Your task to perform on an android device: turn off airplane mode Image 0: 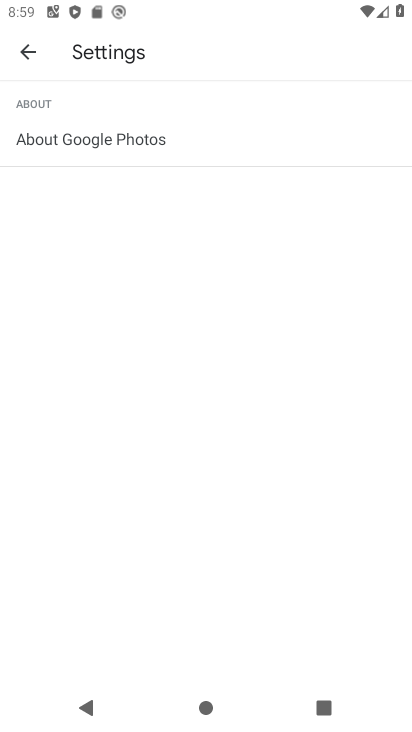
Step 0: press home button
Your task to perform on an android device: turn off airplane mode Image 1: 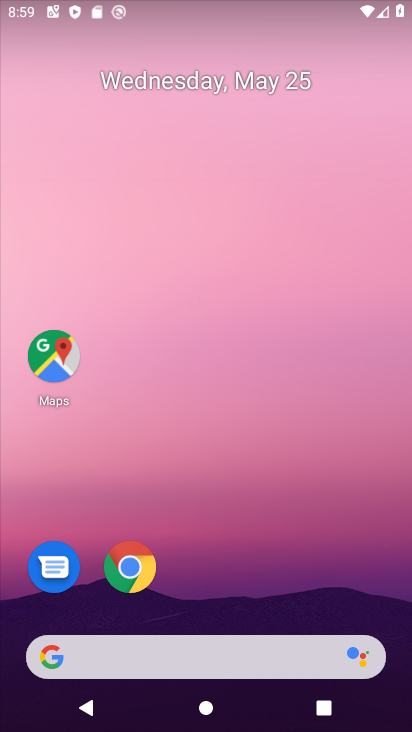
Step 1: drag from (215, 559) to (231, 94)
Your task to perform on an android device: turn off airplane mode Image 2: 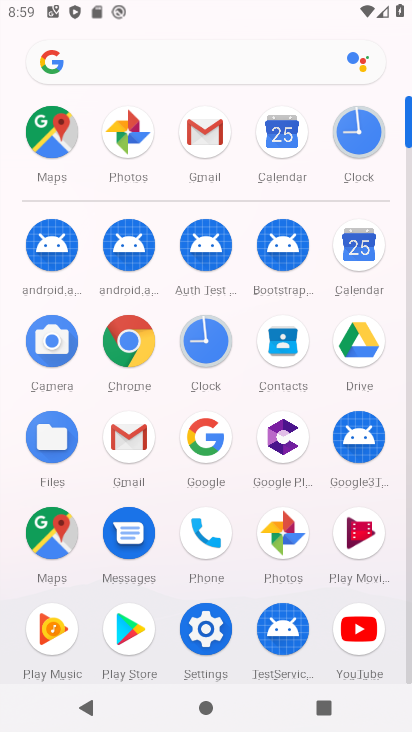
Step 2: click (207, 619)
Your task to perform on an android device: turn off airplane mode Image 3: 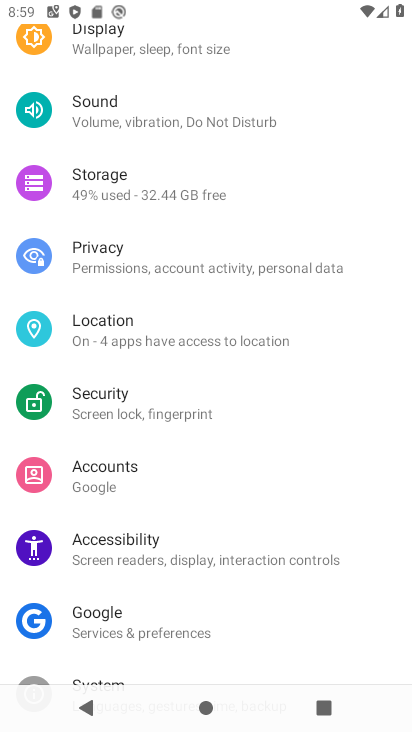
Step 3: drag from (247, 239) to (249, 698)
Your task to perform on an android device: turn off airplane mode Image 4: 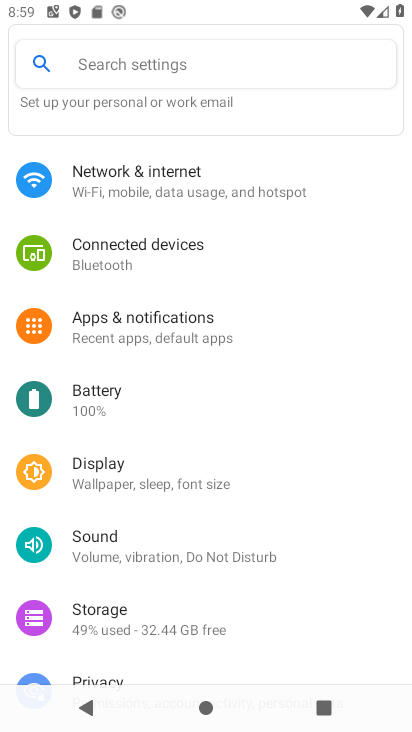
Step 4: click (254, 187)
Your task to perform on an android device: turn off airplane mode Image 5: 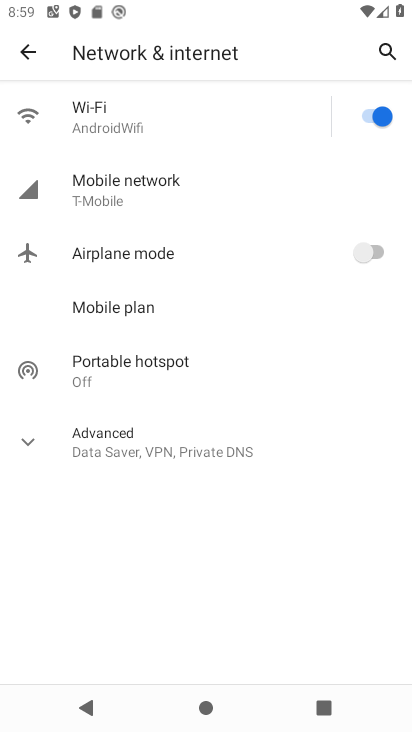
Step 5: task complete